Your task to perform on an android device: Show me recent news Image 0: 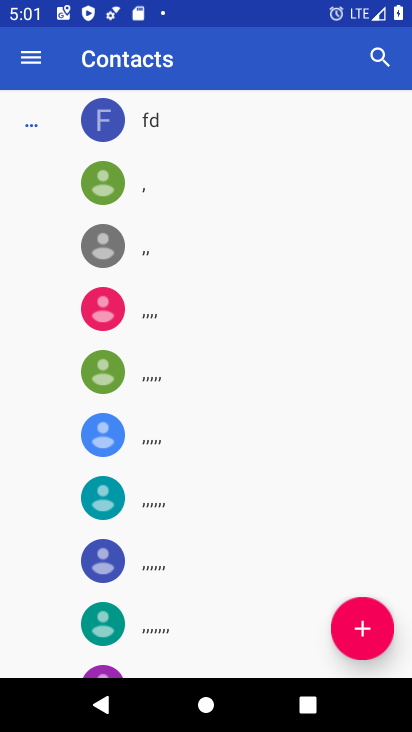
Step 0: press back button
Your task to perform on an android device: Show me recent news Image 1: 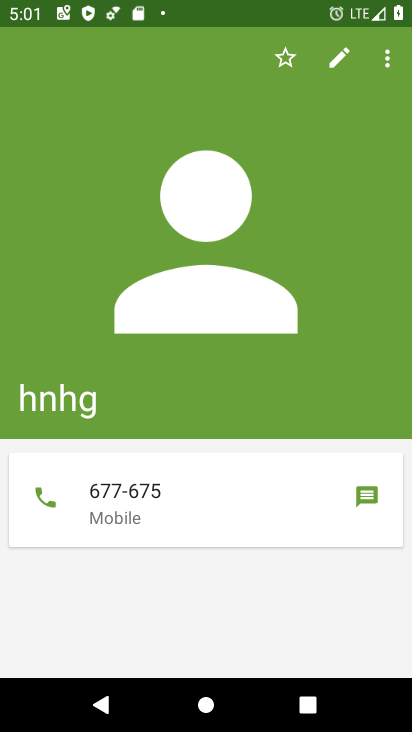
Step 1: press back button
Your task to perform on an android device: Show me recent news Image 2: 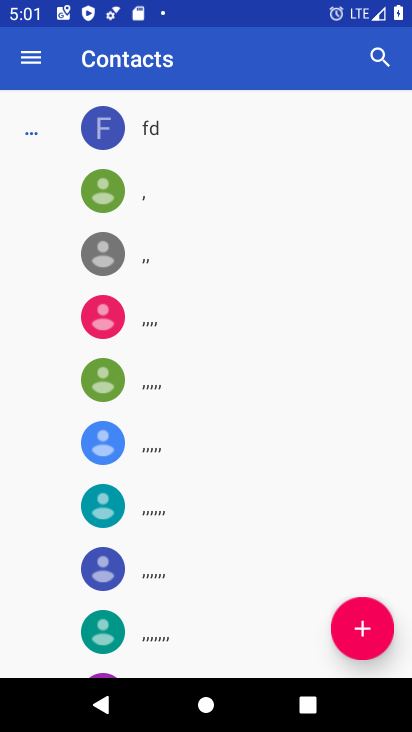
Step 2: press home button
Your task to perform on an android device: Show me recent news Image 3: 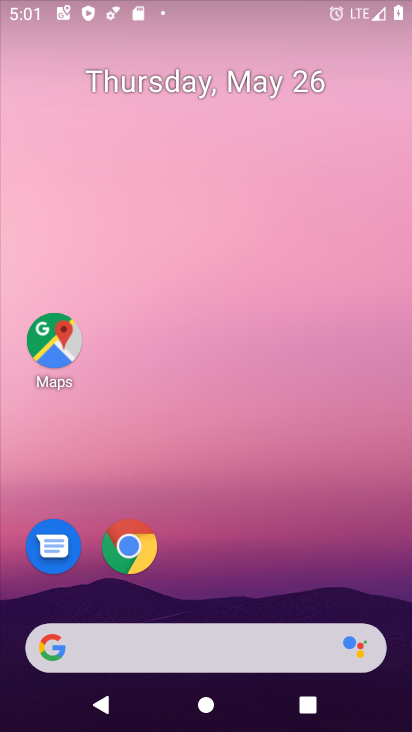
Step 3: click (147, 656)
Your task to perform on an android device: Show me recent news Image 4: 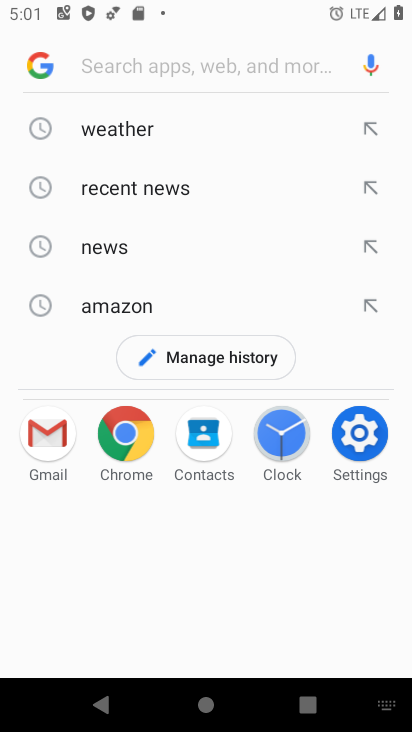
Step 4: click (122, 191)
Your task to perform on an android device: Show me recent news Image 5: 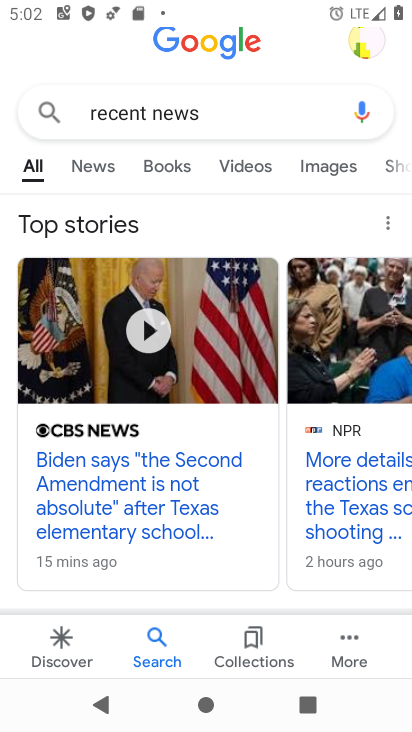
Step 5: task complete